Your task to perform on an android device: create a new album in the google photos Image 0: 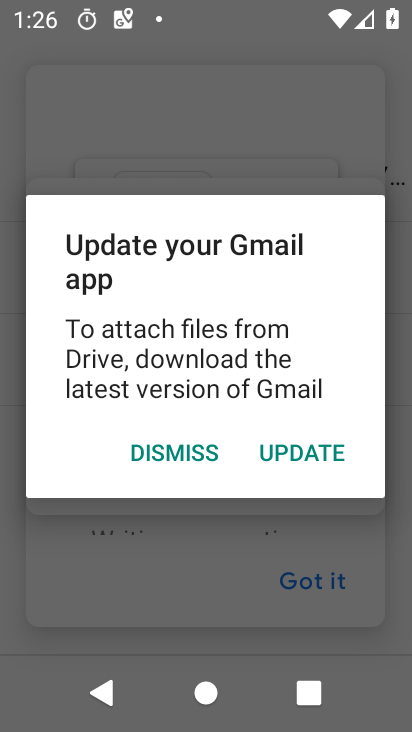
Step 0: press home button
Your task to perform on an android device: create a new album in the google photos Image 1: 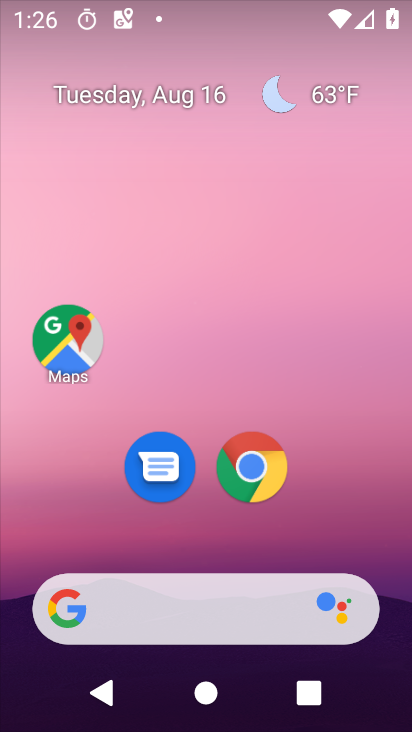
Step 1: drag from (369, 548) to (384, 145)
Your task to perform on an android device: create a new album in the google photos Image 2: 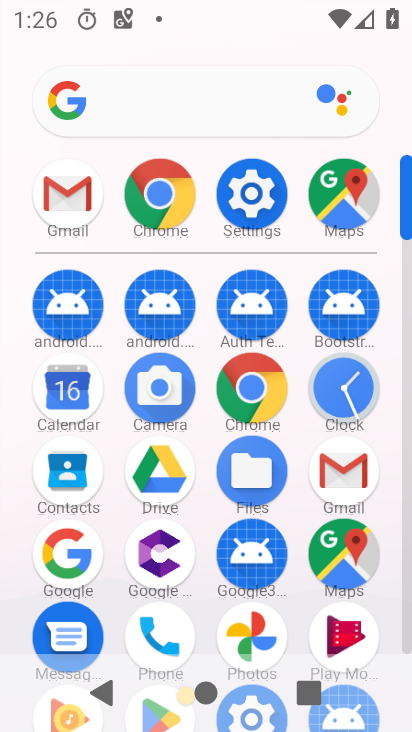
Step 2: drag from (395, 574) to (400, 351)
Your task to perform on an android device: create a new album in the google photos Image 3: 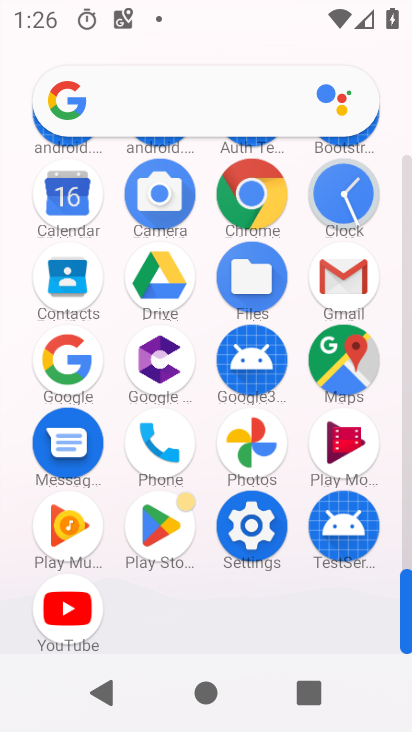
Step 3: click (249, 441)
Your task to perform on an android device: create a new album in the google photos Image 4: 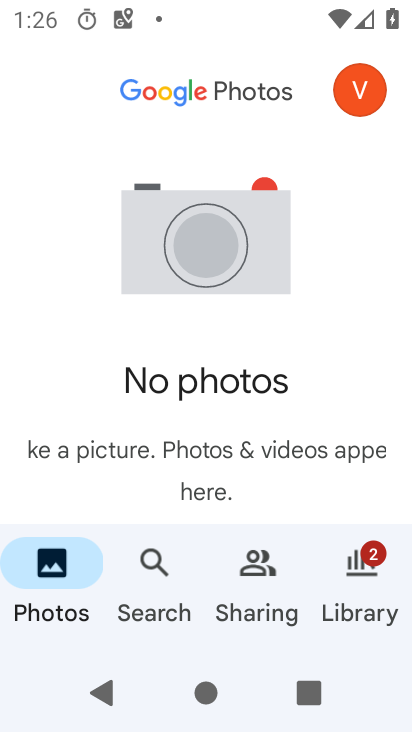
Step 4: click (355, 565)
Your task to perform on an android device: create a new album in the google photos Image 5: 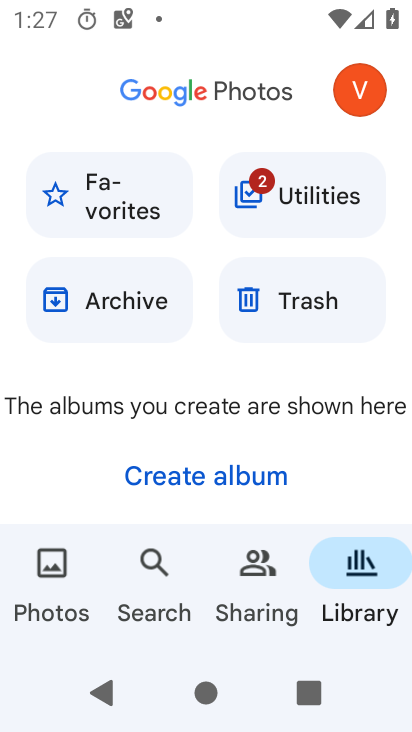
Step 5: click (274, 485)
Your task to perform on an android device: create a new album in the google photos Image 6: 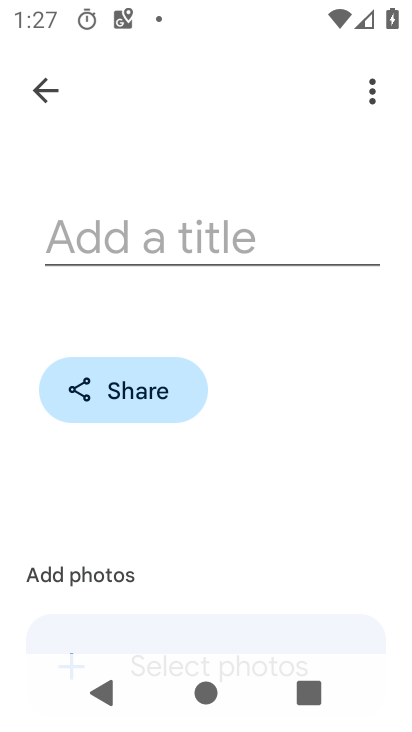
Step 6: click (195, 256)
Your task to perform on an android device: create a new album in the google photos Image 7: 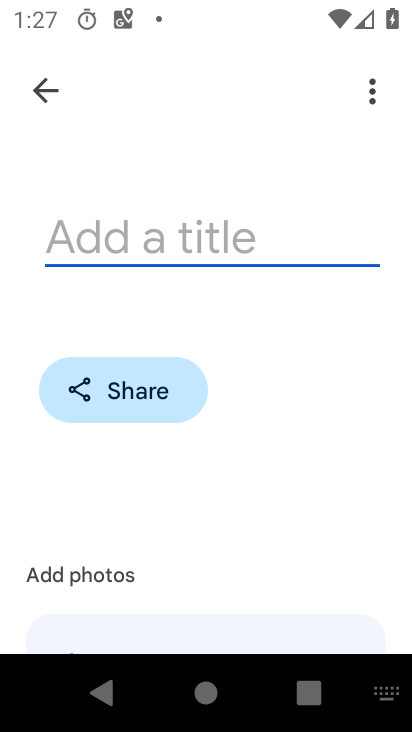
Step 7: type "fav"
Your task to perform on an android device: create a new album in the google photos Image 8: 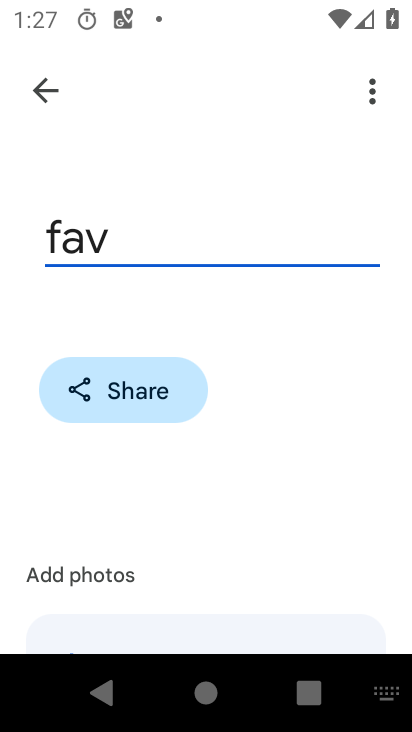
Step 8: drag from (357, 507) to (365, 331)
Your task to perform on an android device: create a new album in the google photos Image 9: 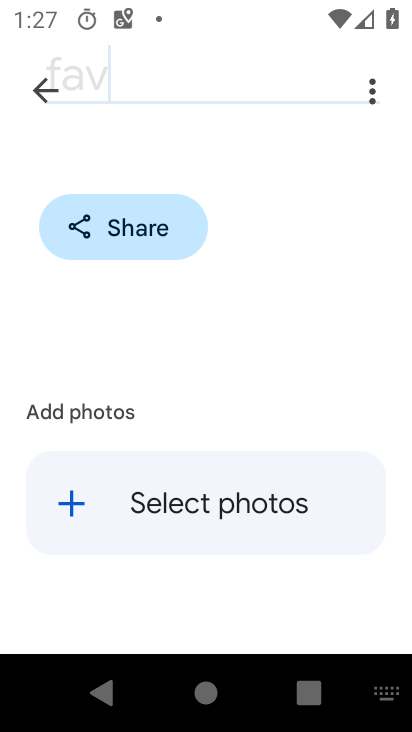
Step 9: click (142, 516)
Your task to perform on an android device: create a new album in the google photos Image 10: 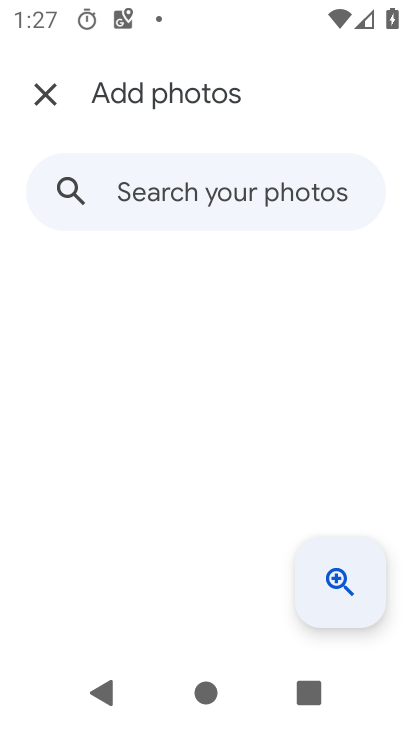
Step 10: task complete